Your task to perform on an android device: toggle priority inbox in the gmail app Image 0: 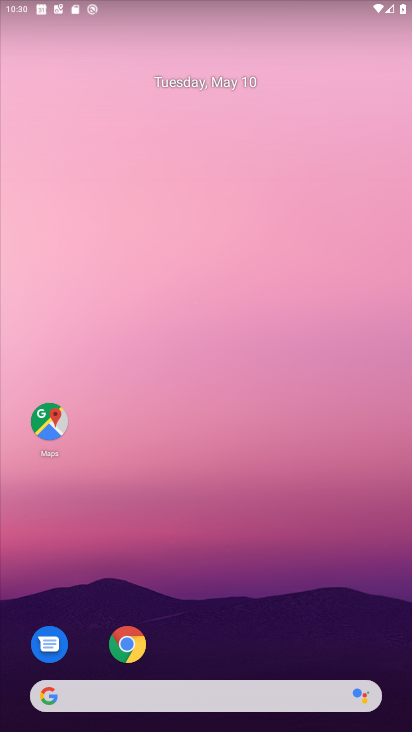
Step 0: drag from (309, 641) to (347, 304)
Your task to perform on an android device: toggle priority inbox in the gmail app Image 1: 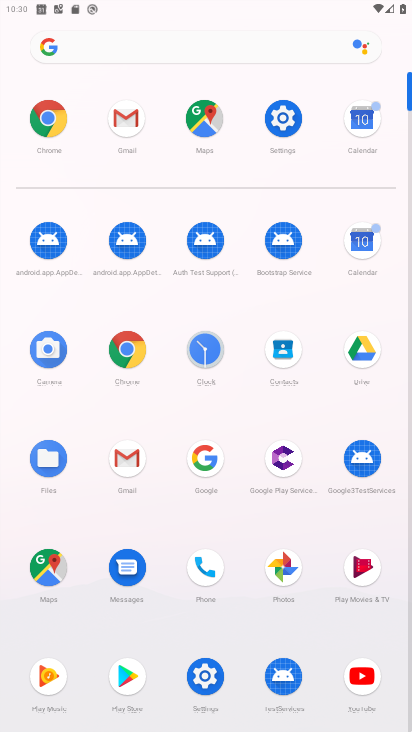
Step 1: click (142, 461)
Your task to perform on an android device: toggle priority inbox in the gmail app Image 2: 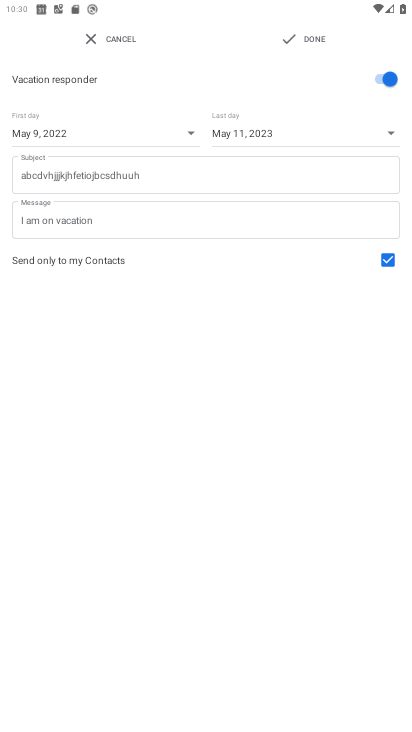
Step 2: click (122, 40)
Your task to perform on an android device: toggle priority inbox in the gmail app Image 3: 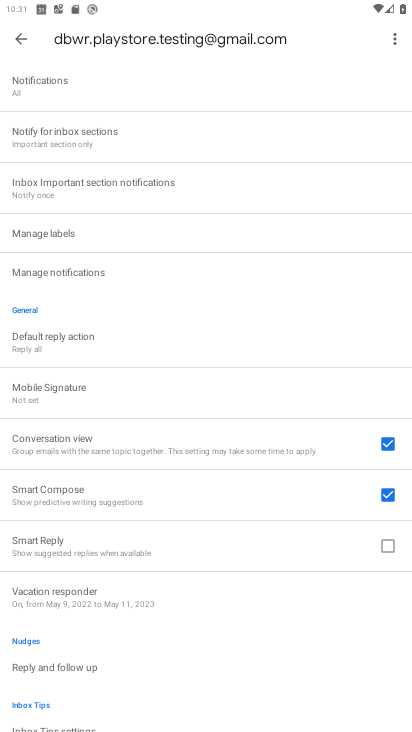
Step 3: drag from (122, 165) to (108, 464)
Your task to perform on an android device: toggle priority inbox in the gmail app Image 4: 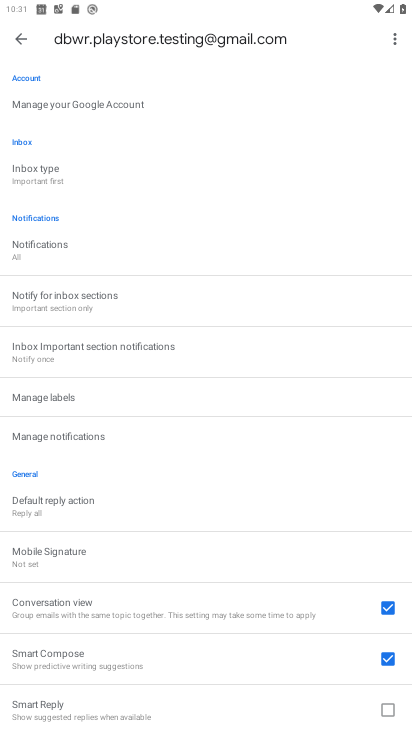
Step 4: click (87, 174)
Your task to perform on an android device: toggle priority inbox in the gmail app Image 5: 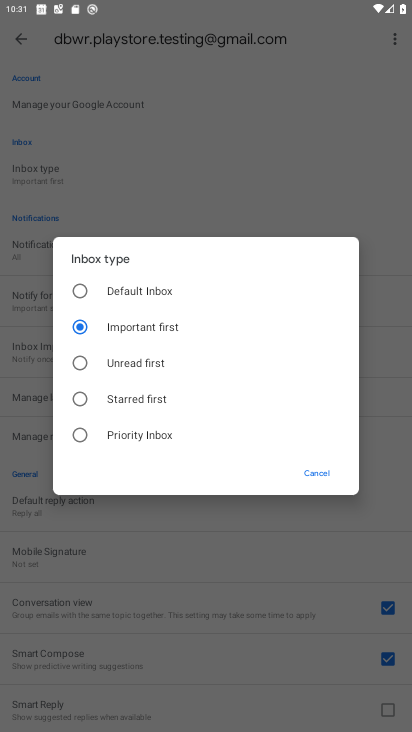
Step 5: click (112, 439)
Your task to perform on an android device: toggle priority inbox in the gmail app Image 6: 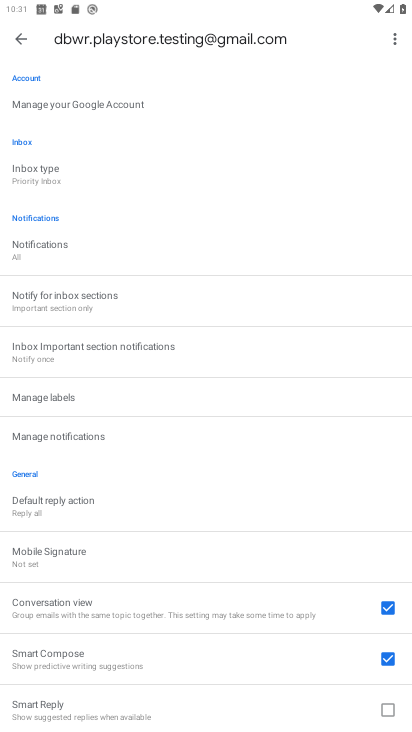
Step 6: task complete